Your task to perform on an android device: What is the recent news? Image 0: 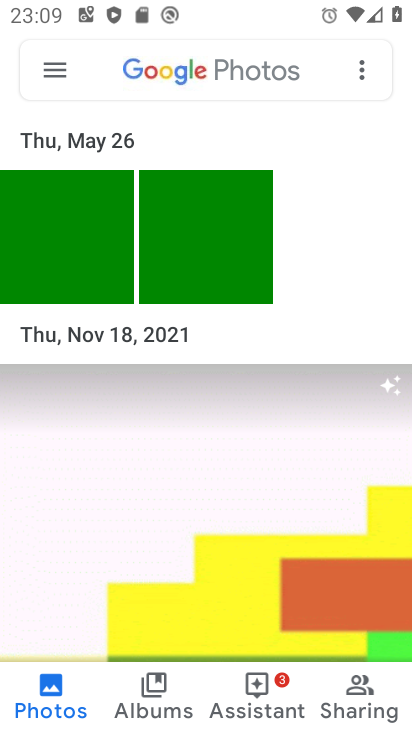
Step 0: press home button
Your task to perform on an android device: What is the recent news? Image 1: 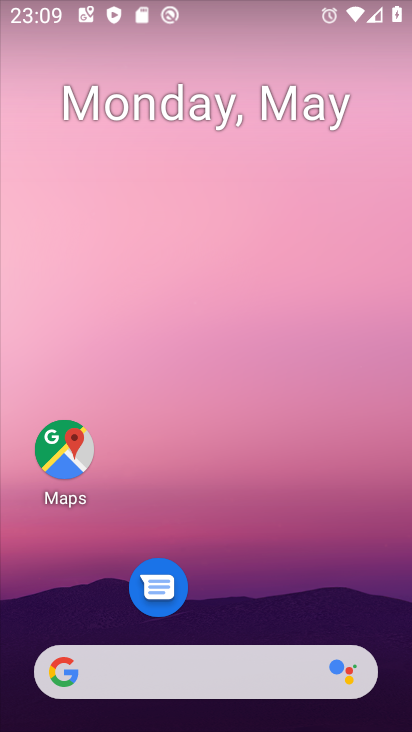
Step 1: click (203, 668)
Your task to perform on an android device: What is the recent news? Image 2: 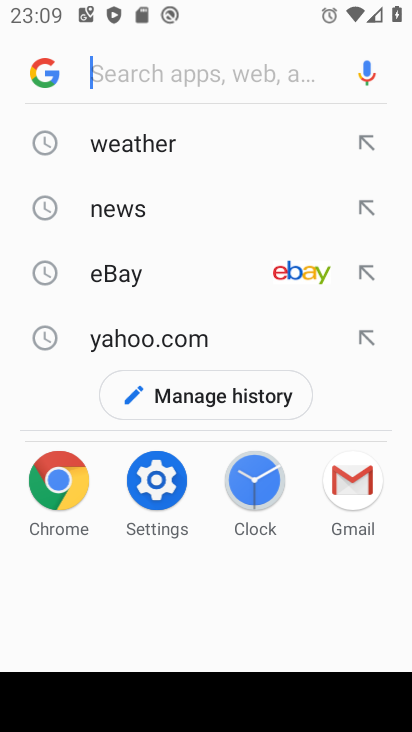
Step 2: click (135, 220)
Your task to perform on an android device: What is the recent news? Image 3: 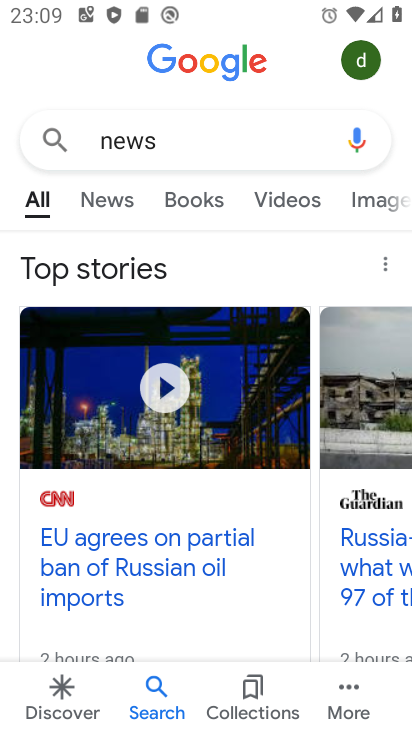
Step 3: click (120, 201)
Your task to perform on an android device: What is the recent news? Image 4: 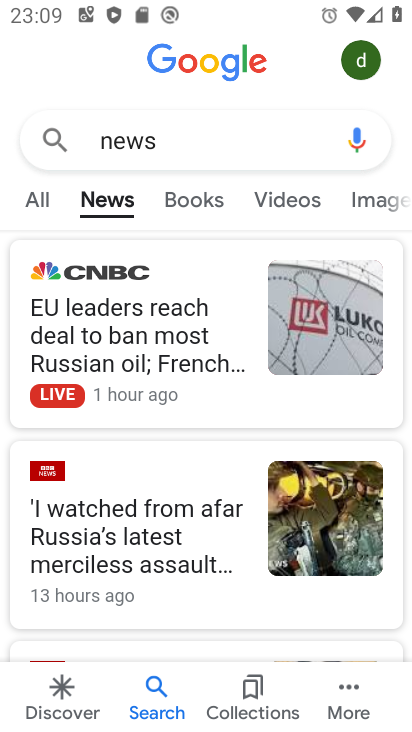
Step 4: task complete